Your task to perform on an android device: check storage Image 0: 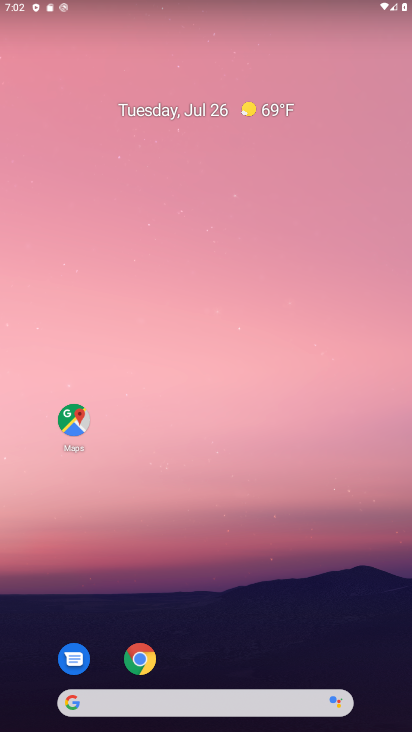
Step 0: drag from (211, 720) to (244, 265)
Your task to perform on an android device: check storage Image 1: 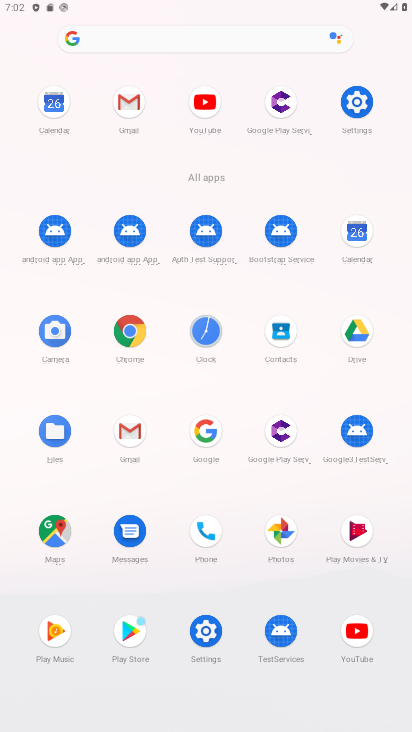
Step 1: click (203, 642)
Your task to perform on an android device: check storage Image 2: 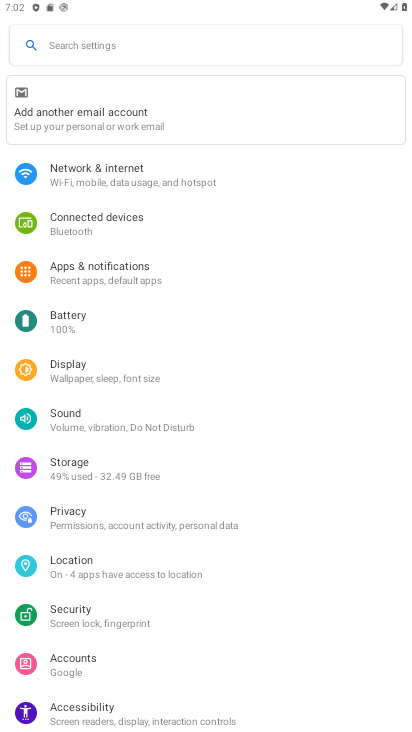
Step 2: click (99, 46)
Your task to perform on an android device: check storage Image 3: 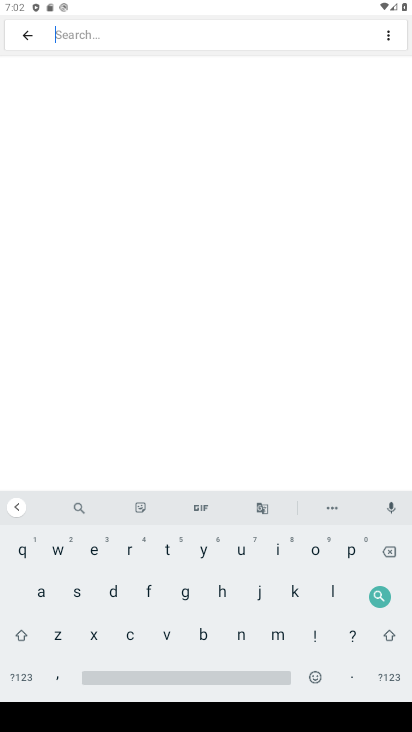
Step 3: click (72, 592)
Your task to perform on an android device: check storage Image 4: 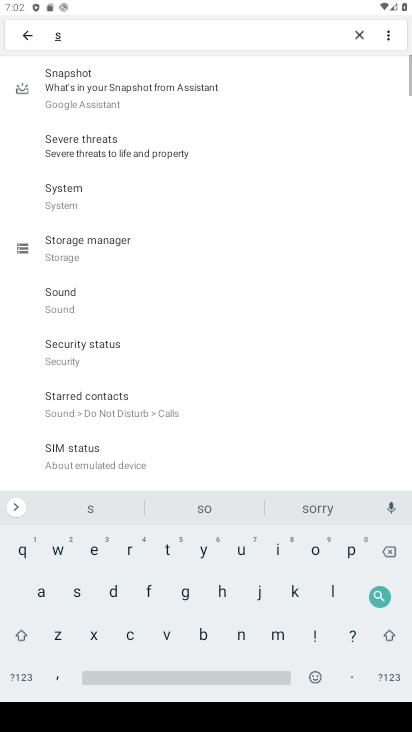
Step 4: click (165, 546)
Your task to perform on an android device: check storage Image 5: 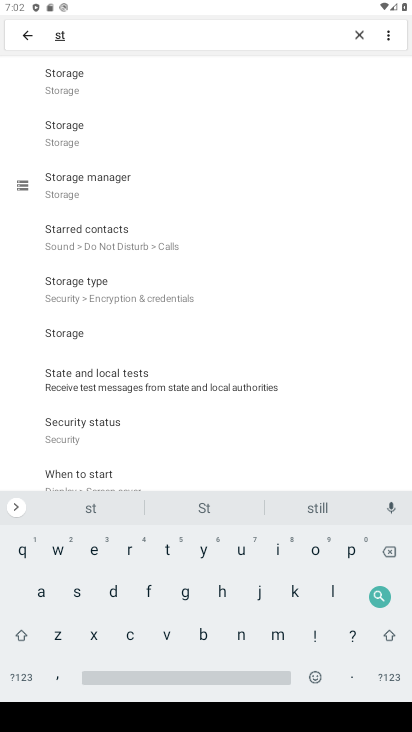
Step 5: click (72, 84)
Your task to perform on an android device: check storage Image 6: 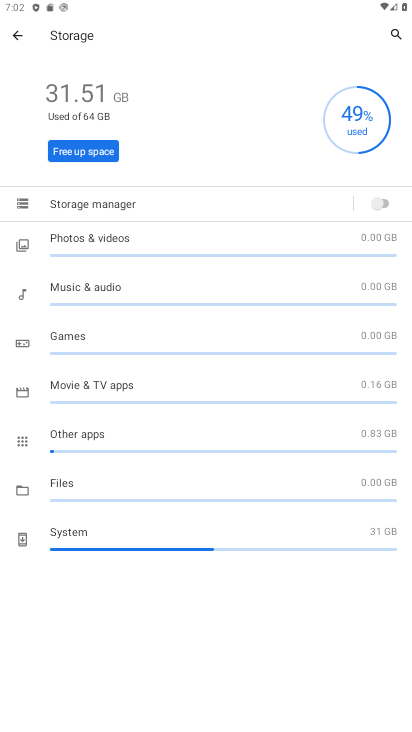
Step 6: task complete